Your task to perform on an android device: Open internet settings Image 0: 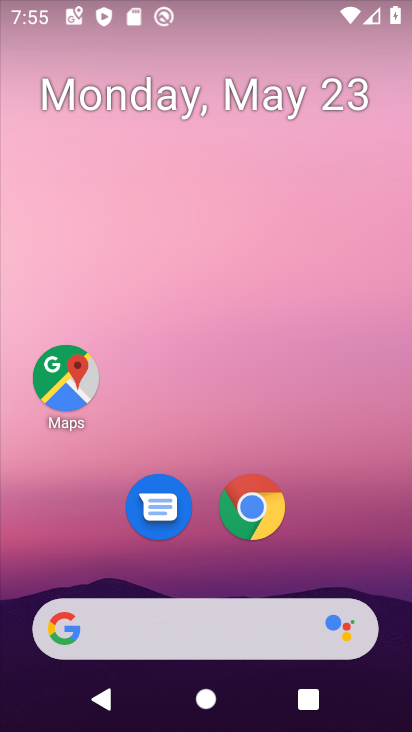
Step 0: drag from (344, 480) to (343, 128)
Your task to perform on an android device: Open internet settings Image 1: 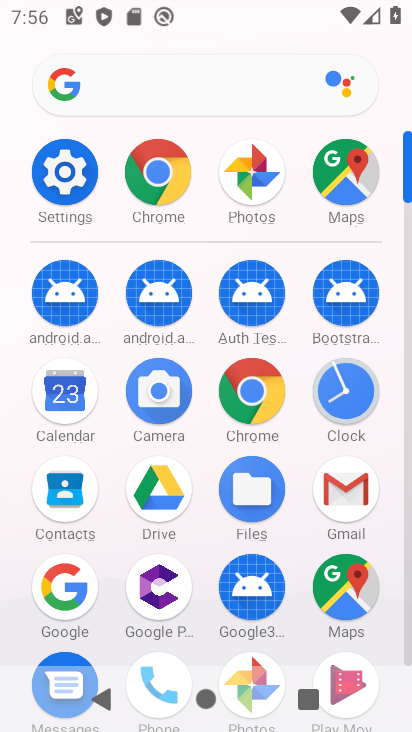
Step 1: click (43, 177)
Your task to perform on an android device: Open internet settings Image 2: 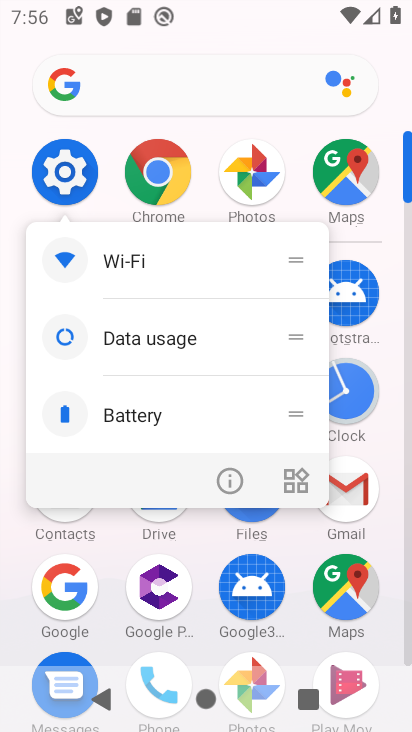
Step 2: click (68, 175)
Your task to perform on an android device: Open internet settings Image 3: 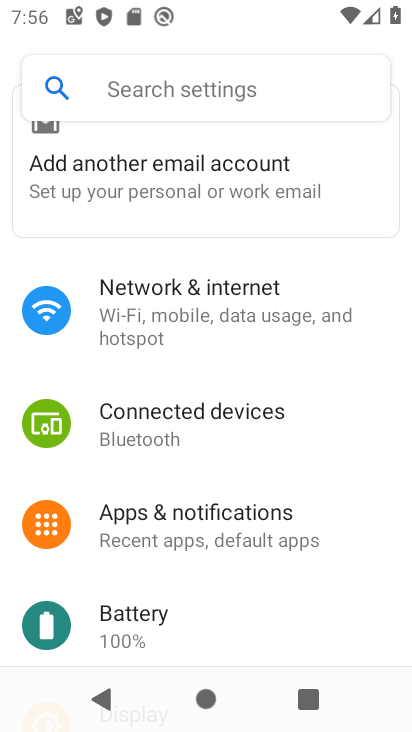
Step 3: click (170, 299)
Your task to perform on an android device: Open internet settings Image 4: 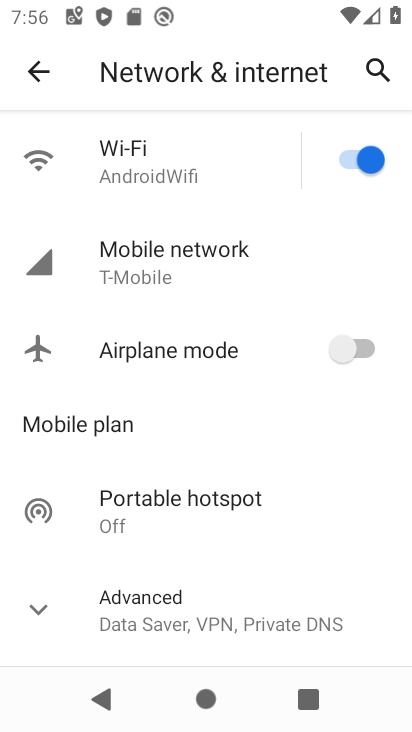
Step 4: task complete